Your task to perform on an android device: turn on priority inbox in the gmail app Image 0: 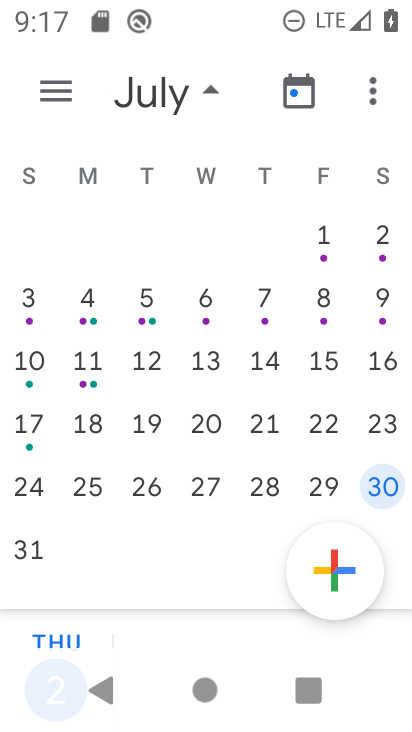
Step 0: press home button
Your task to perform on an android device: turn on priority inbox in the gmail app Image 1: 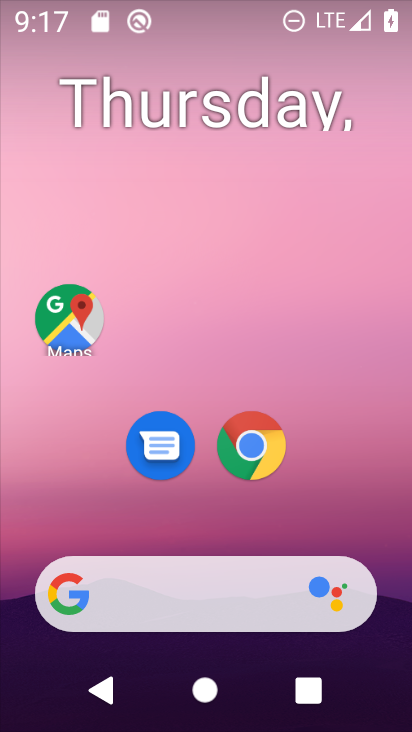
Step 1: drag from (377, 452) to (296, 131)
Your task to perform on an android device: turn on priority inbox in the gmail app Image 2: 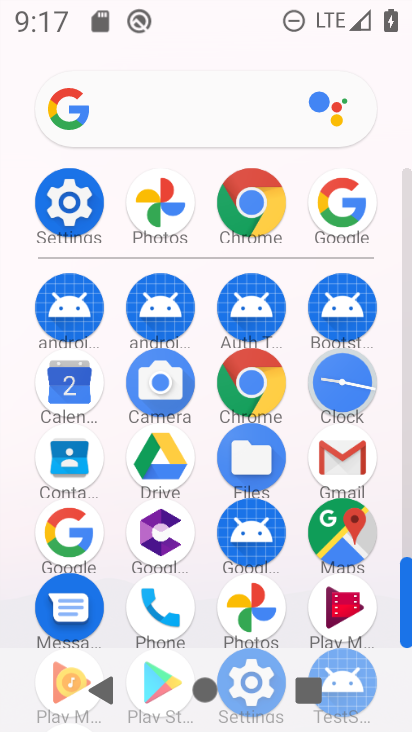
Step 2: click (335, 458)
Your task to perform on an android device: turn on priority inbox in the gmail app Image 3: 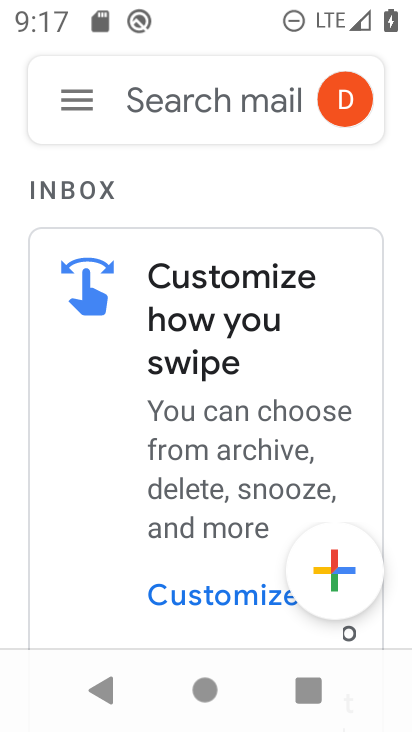
Step 3: click (84, 98)
Your task to perform on an android device: turn on priority inbox in the gmail app Image 4: 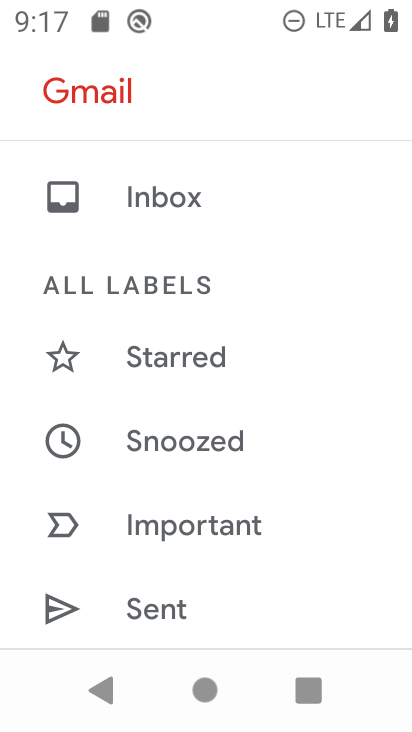
Step 4: drag from (225, 577) to (221, 11)
Your task to perform on an android device: turn on priority inbox in the gmail app Image 5: 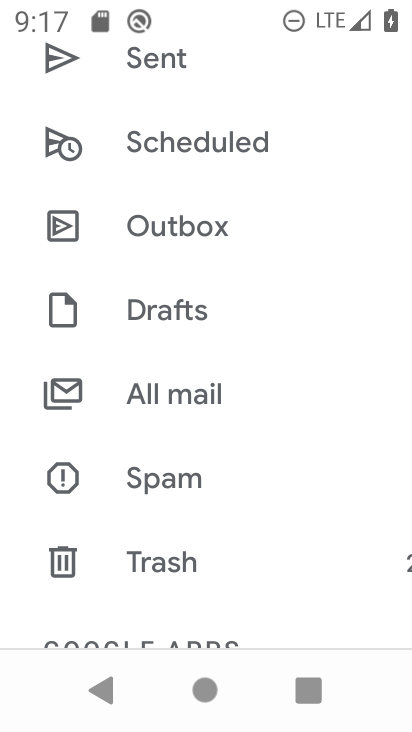
Step 5: drag from (234, 593) to (162, 32)
Your task to perform on an android device: turn on priority inbox in the gmail app Image 6: 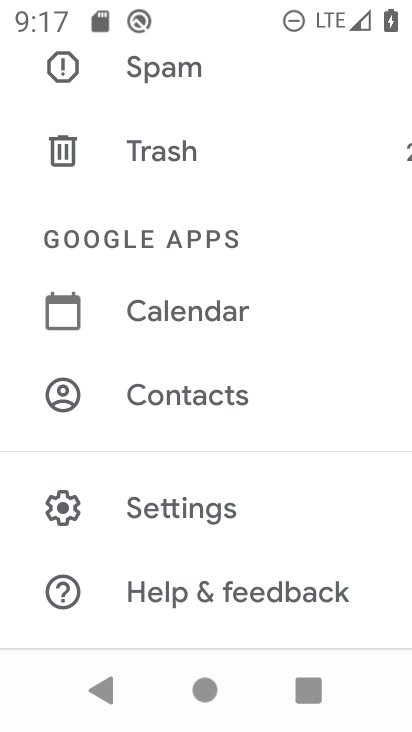
Step 6: click (216, 497)
Your task to perform on an android device: turn on priority inbox in the gmail app Image 7: 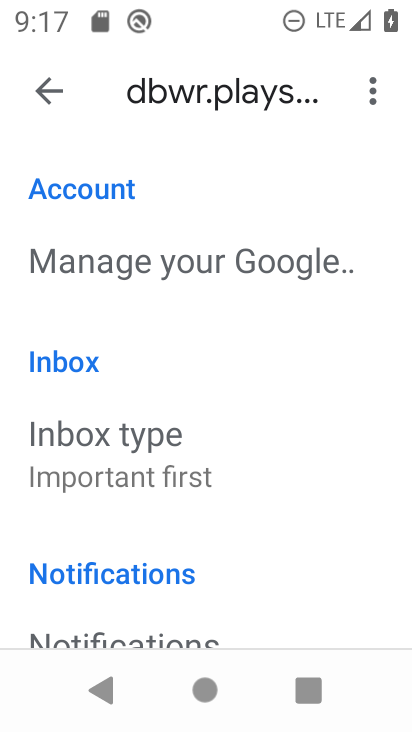
Step 7: click (174, 455)
Your task to perform on an android device: turn on priority inbox in the gmail app Image 8: 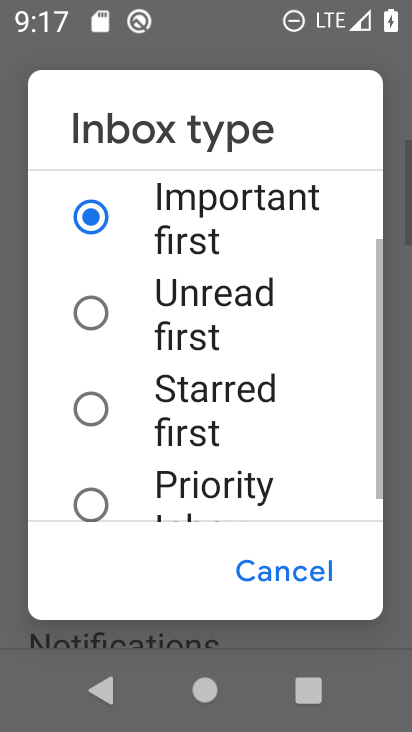
Step 8: drag from (179, 491) to (189, 101)
Your task to perform on an android device: turn on priority inbox in the gmail app Image 9: 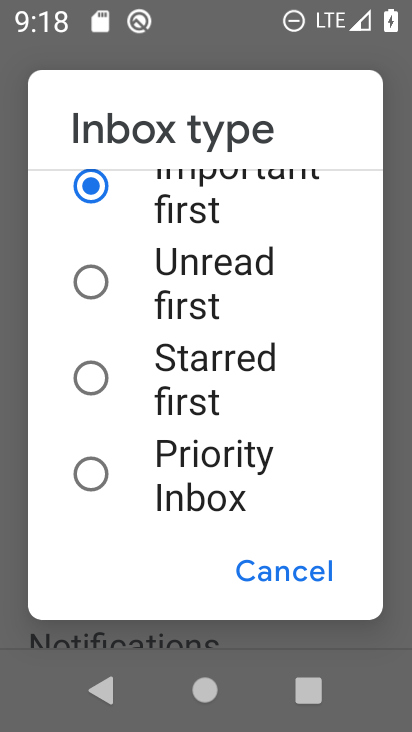
Step 9: click (85, 493)
Your task to perform on an android device: turn on priority inbox in the gmail app Image 10: 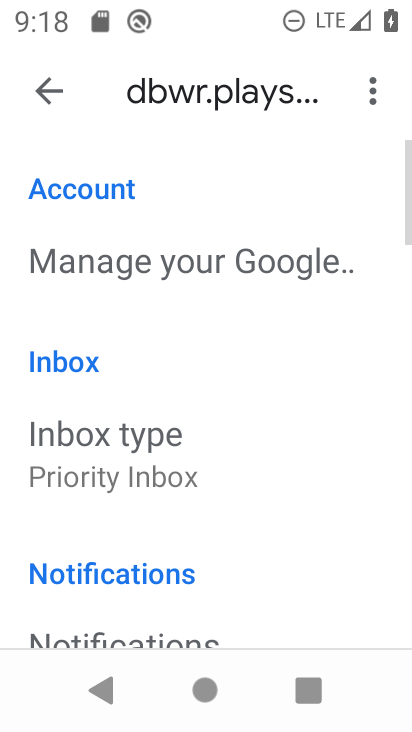
Step 10: task complete